Your task to perform on an android device: change the upload size in google photos Image 0: 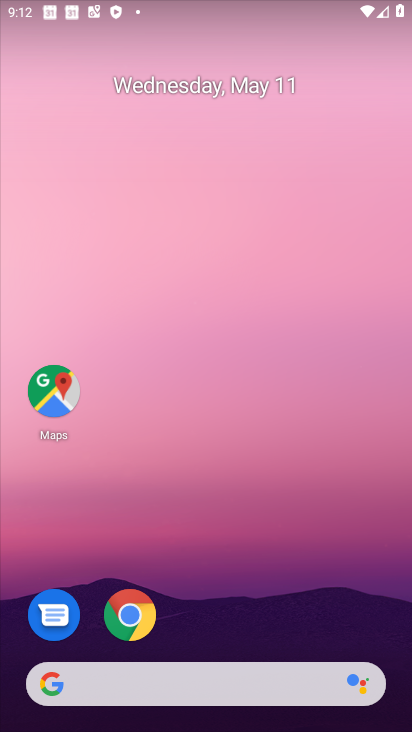
Step 0: drag from (22, 549) to (200, 250)
Your task to perform on an android device: change the upload size in google photos Image 1: 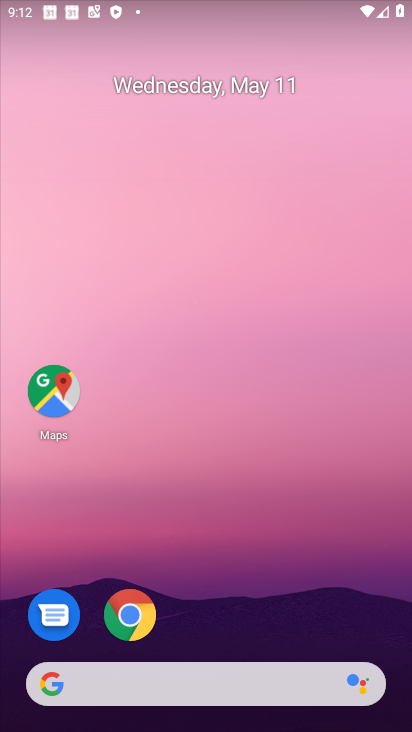
Step 1: drag from (6, 633) to (267, 257)
Your task to perform on an android device: change the upload size in google photos Image 2: 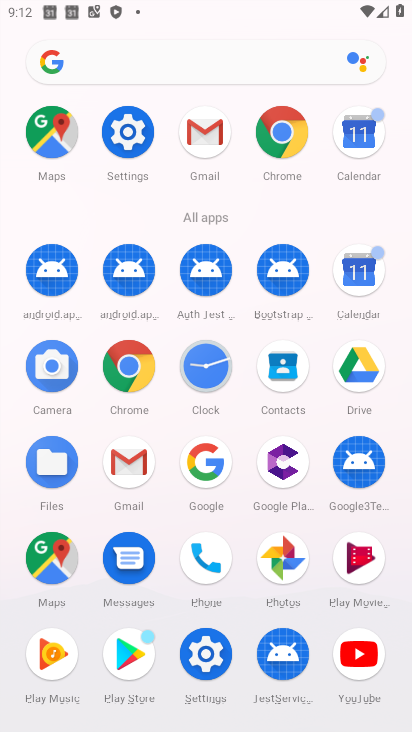
Step 2: click (267, 550)
Your task to perform on an android device: change the upload size in google photos Image 3: 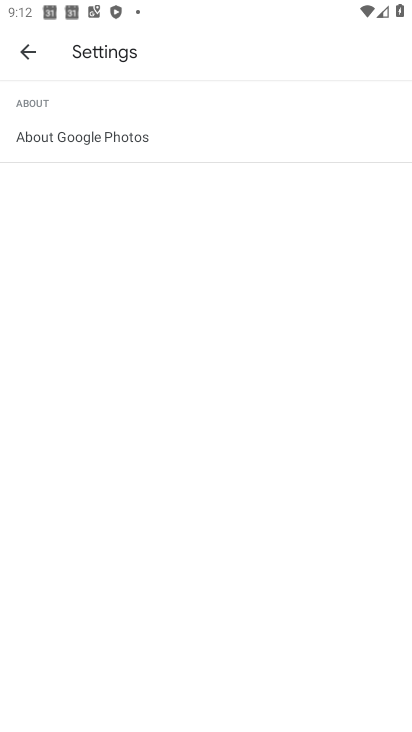
Step 3: click (27, 49)
Your task to perform on an android device: change the upload size in google photos Image 4: 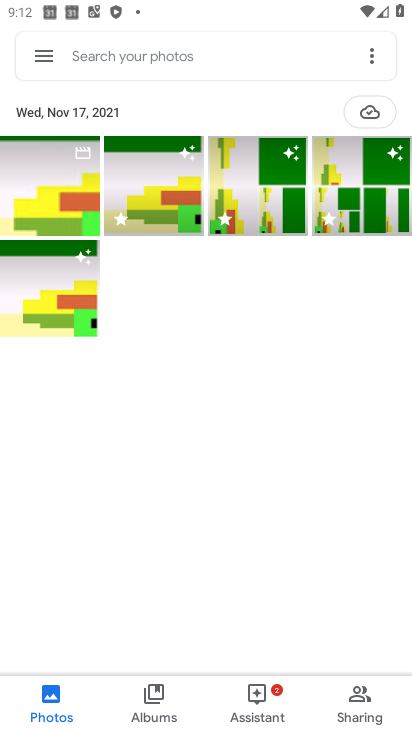
Step 4: click (37, 58)
Your task to perform on an android device: change the upload size in google photos Image 5: 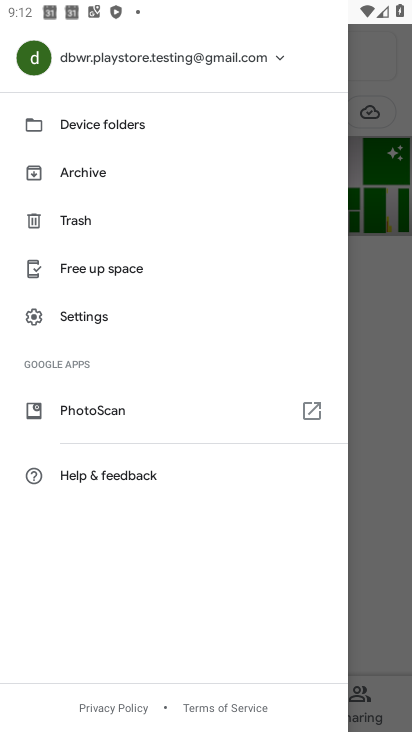
Step 5: click (51, 321)
Your task to perform on an android device: change the upload size in google photos Image 6: 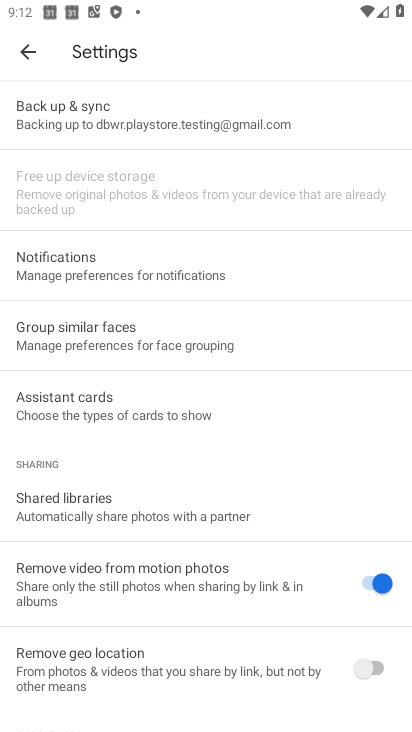
Step 6: click (172, 110)
Your task to perform on an android device: change the upload size in google photos Image 7: 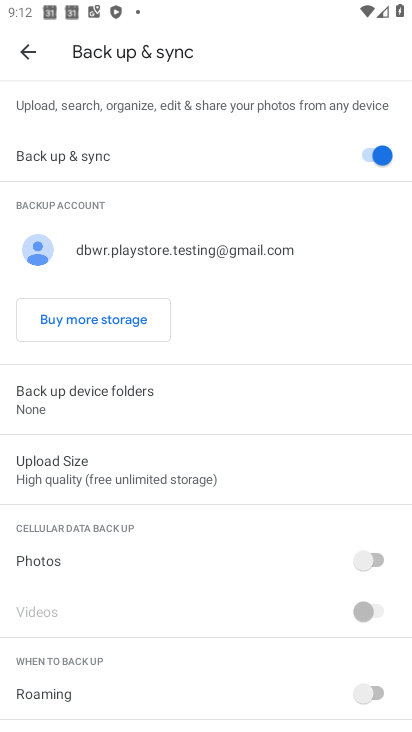
Step 7: click (88, 488)
Your task to perform on an android device: change the upload size in google photos Image 8: 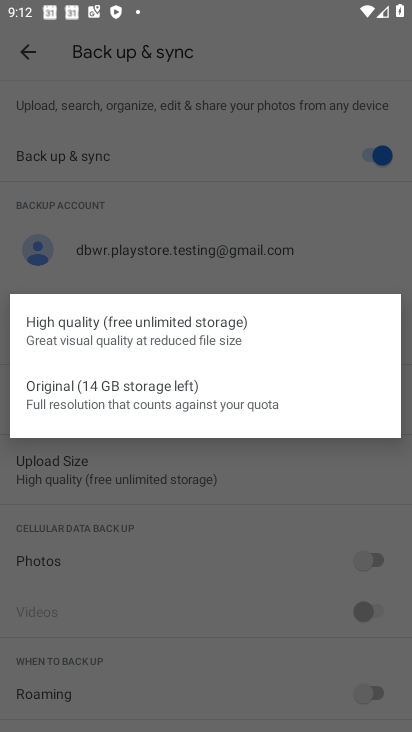
Step 8: click (108, 408)
Your task to perform on an android device: change the upload size in google photos Image 9: 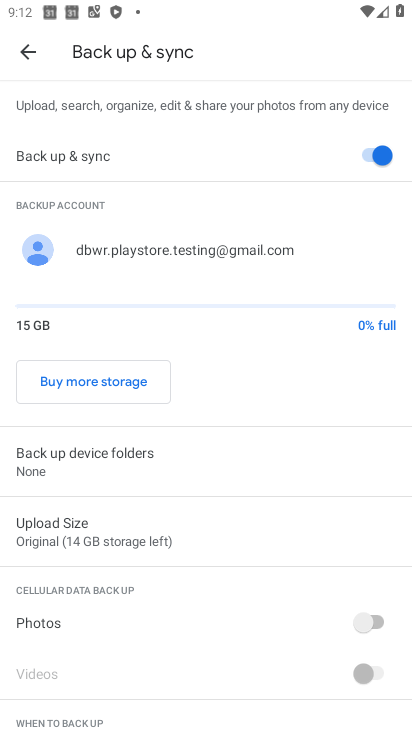
Step 9: task complete